Your task to perform on an android device: check battery use Image 0: 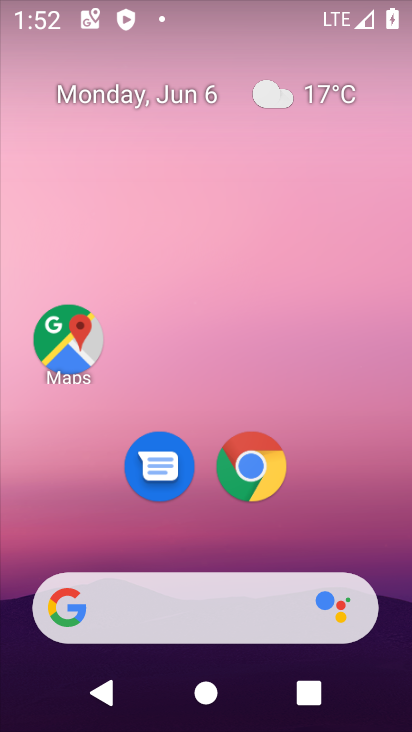
Step 0: press home button
Your task to perform on an android device: check battery use Image 1: 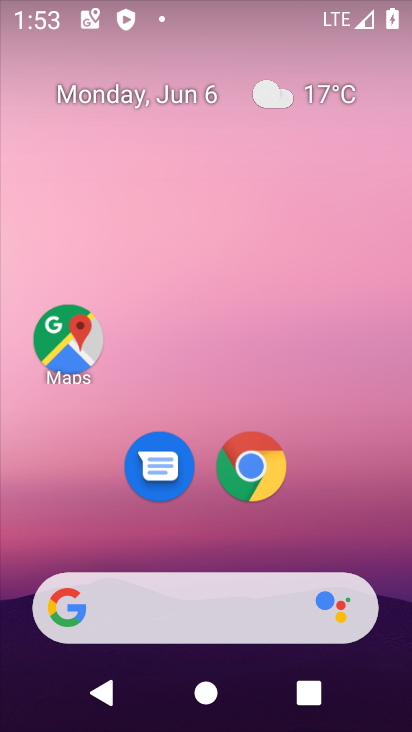
Step 1: drag from (201, 520) to (171, 93)
Your task to perform on an android device: check battery use Image 2: 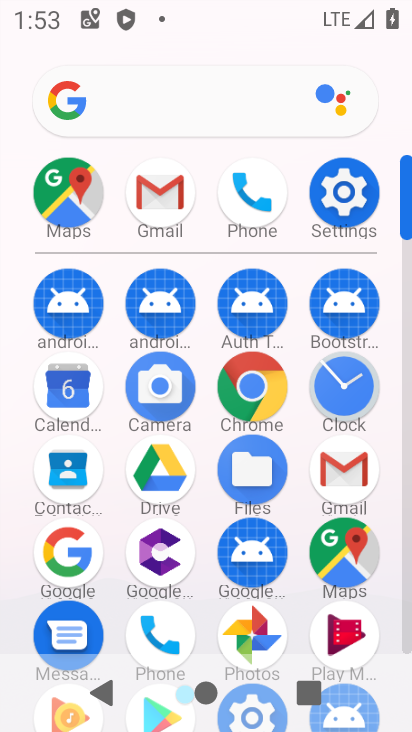
Step 2: click (346, 198)
Your task to perform on an android device: check battery use Image 3: 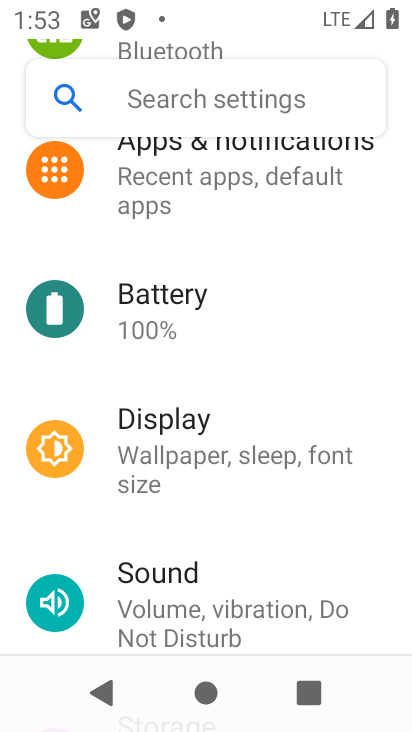
Step 3: click (153, 304)
Your task to perform on an android device: check battery use Image 4: 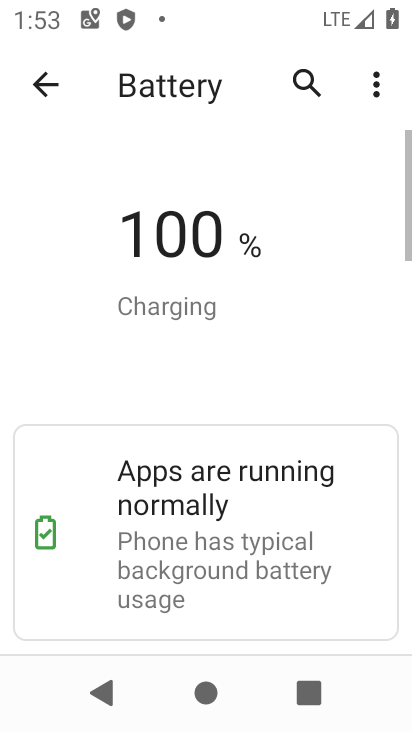
Step 4: click (373, 81)
Your task to perform on an android device: check battery use Image 5: 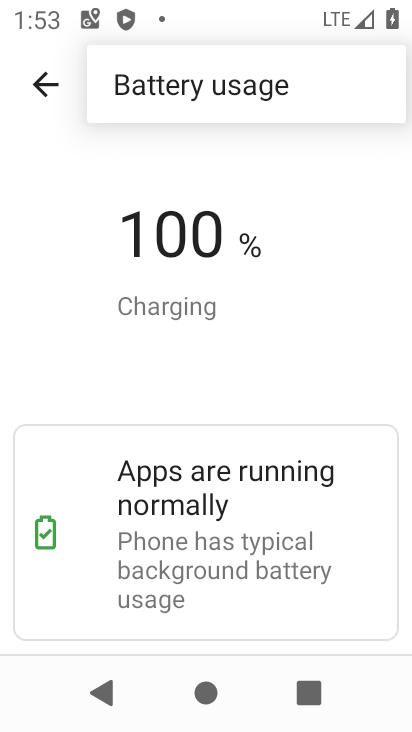
Step 5: click (193, 88)
Your task to perform on an android device: check battery use Image 6: 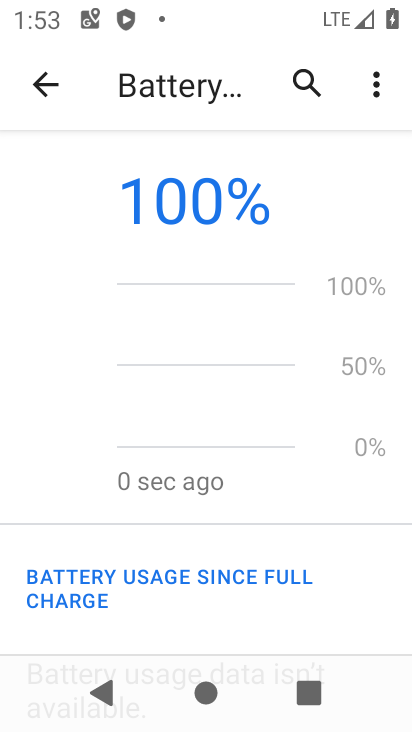
Step 6: task complete